Your task to perform on an android device: set the timer Image 0: 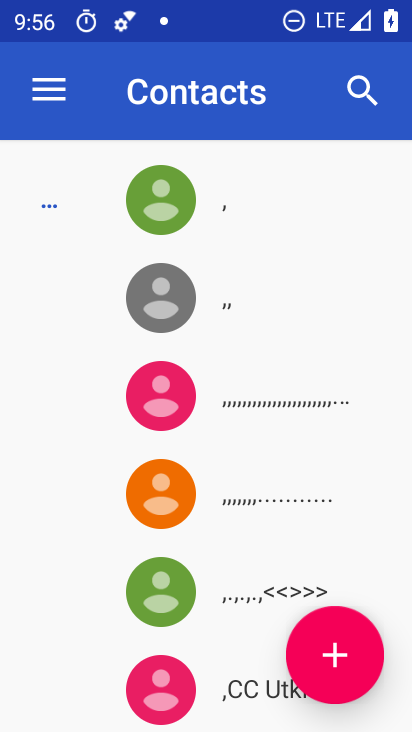
Step 0: press home button
Your task to perform on an android device: set the timer Image 1: 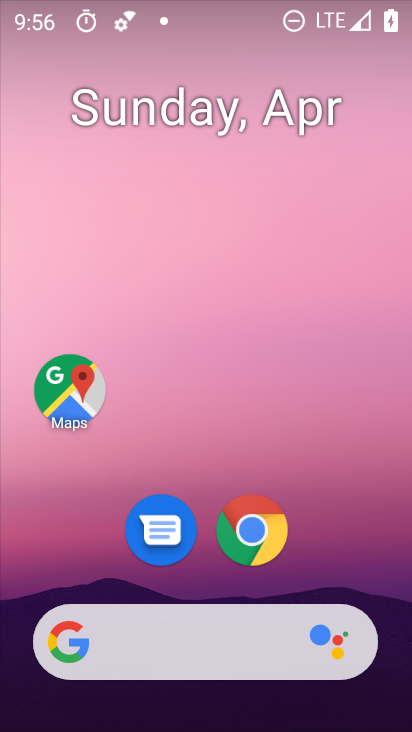
Step 1: drag from (381, 544) to (404, 13)
Your task to perform on an android device: set the timer Image 2: 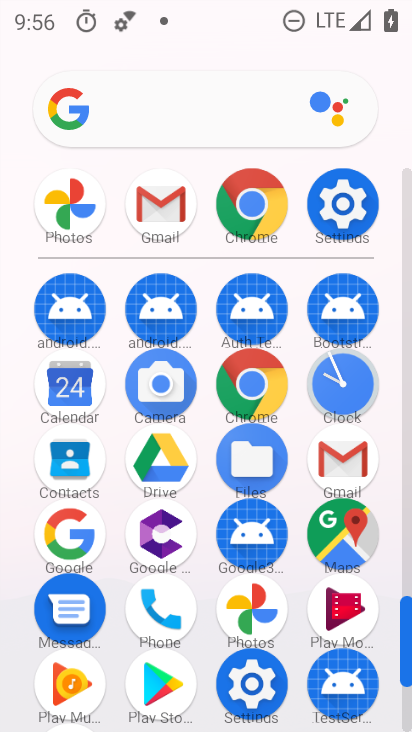
Step 2: click (347, 382)
Your task to perform on an android device: set the timer Image 3: 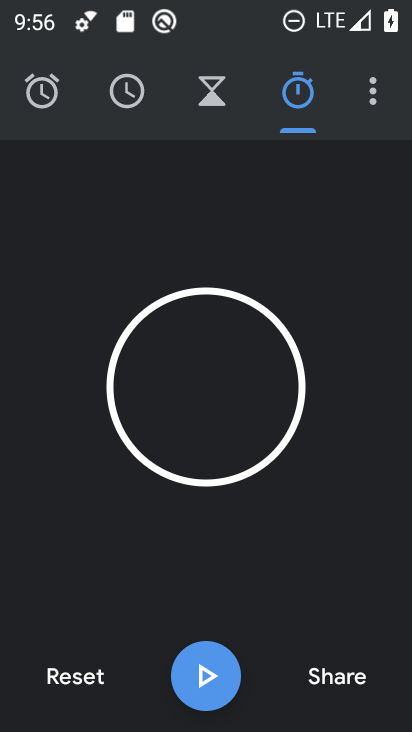
Step 3: click (217, 95)
Your task to perform on an android device: set the timer Image 4: 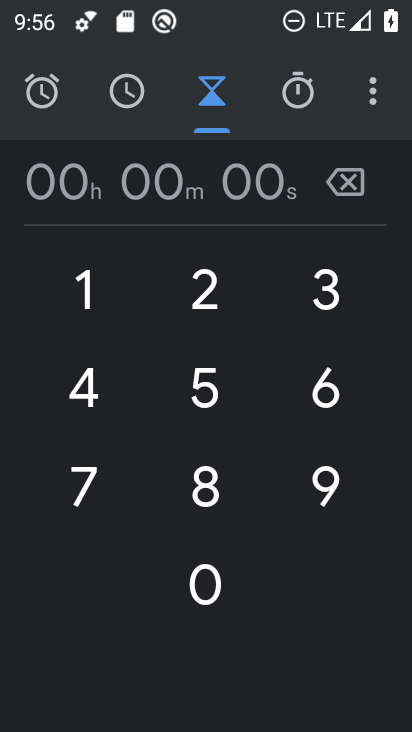
Step 4: click (201, 381)
Your task to perform on an android device: set the timer Image 5: 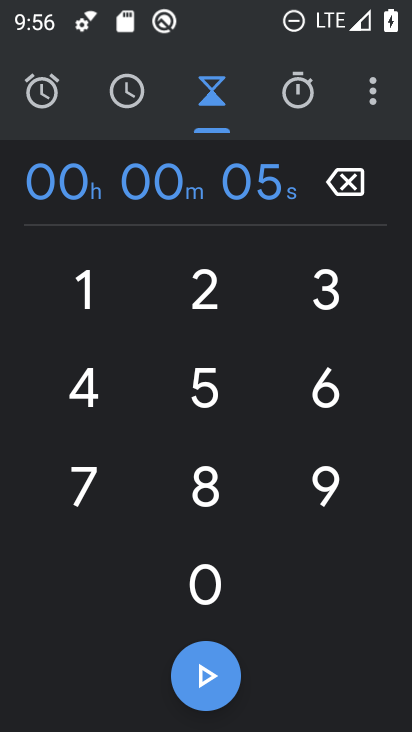
Step 5: click (193, 593)
Your task to perform on an android device: set the timer Image 6: 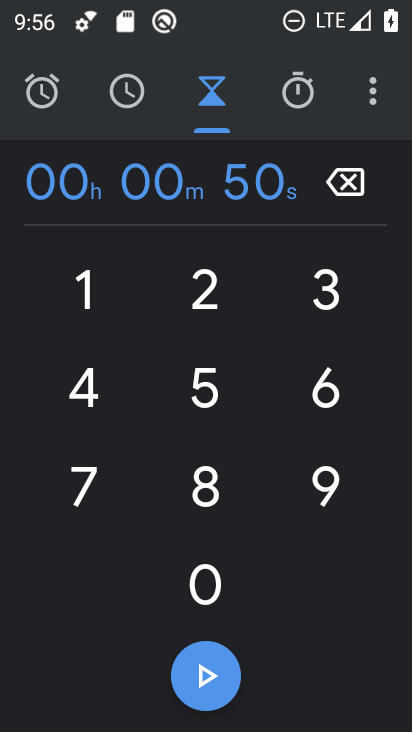
Step 6: click (204, 288)
Your task to perform on an android device: set the timer Image 7: 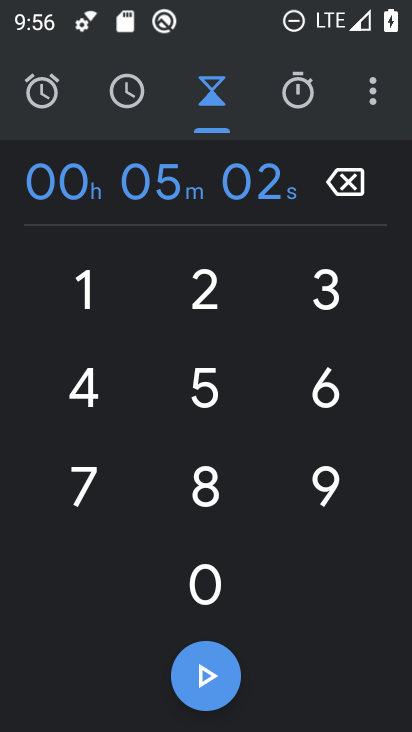
Step 7: click (201, 573)
Your task to perform on an android device: set the timer Image 8: 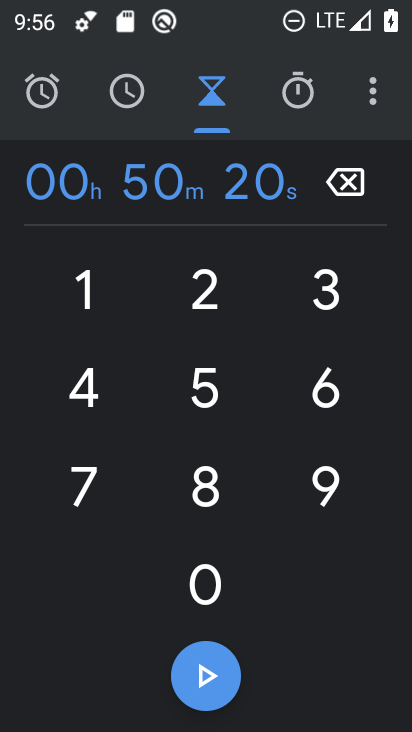
Step 8: click (190, 646)
Your task to perform on an android device: set the timer Image 9: 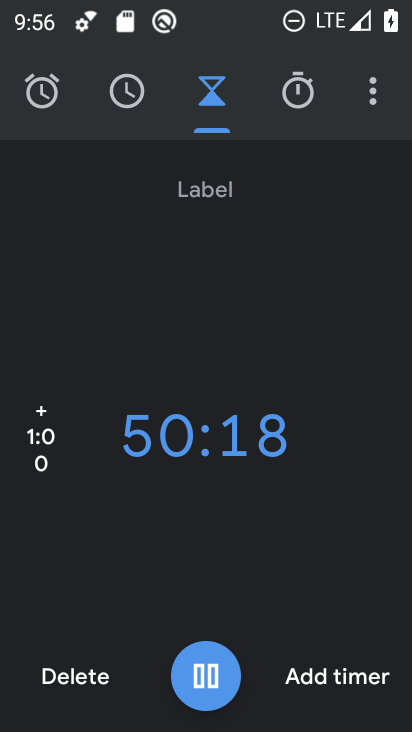
Step 9: task complete